Your task to perform on an android device: Play the last video I watched on Youtube Image 0: 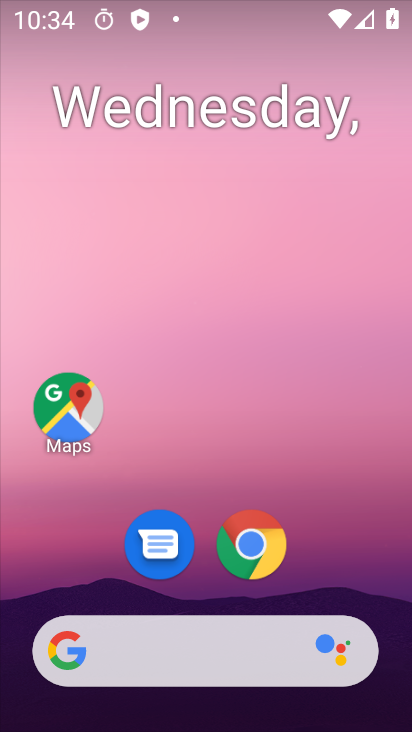
Step 0: drag from (302, 703) to (225, 29)
Your task to perform on an android device: Play the last video I watched on Youtube Image 1: 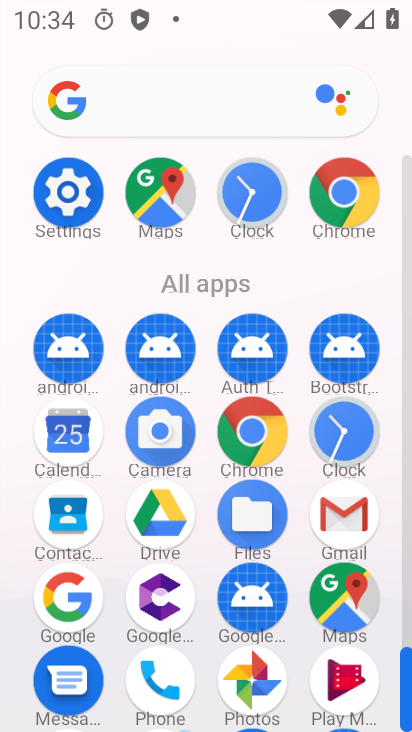
Step 1: drag from (208, 542) to (227, 153)
Your task to perform on an android device: Play the last video I watched on Youtube Image 2: 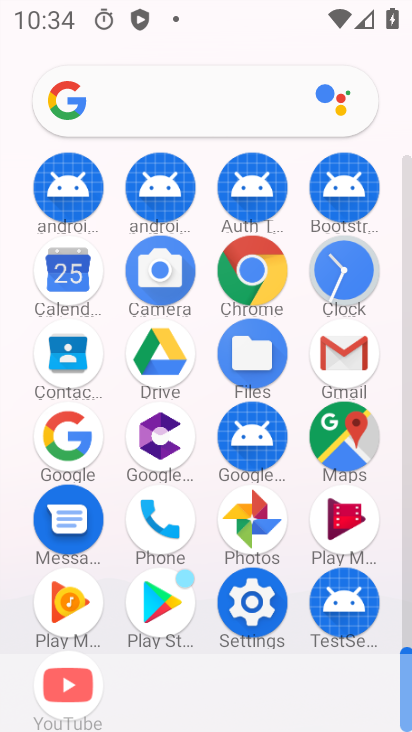
Step 2: drag from (101, 570) to (123, 472)
Your task to perform on an android device: Play the last video I watched on Youtube Image 3: 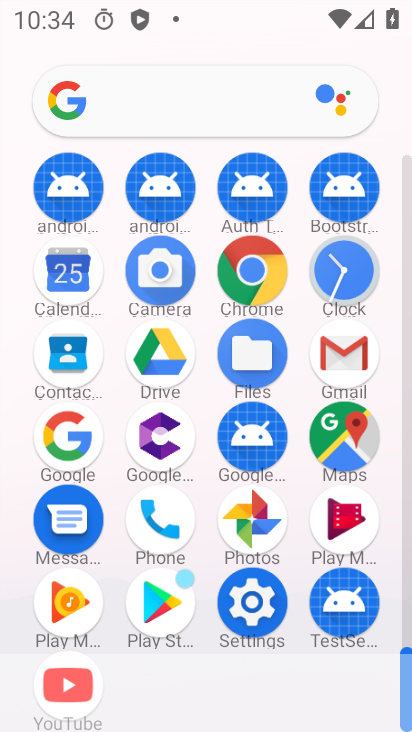
Step 3: click (65, 658)
Your task to perform on an android device: Play the last video I watched on Youtube Image 4: 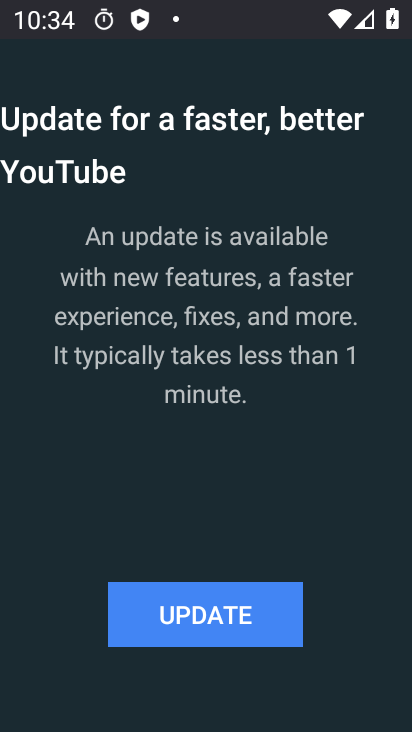
Step 4: click (199, 601)
Your task to perform on an android device: Play the last video I watched on Youtube Image 5: 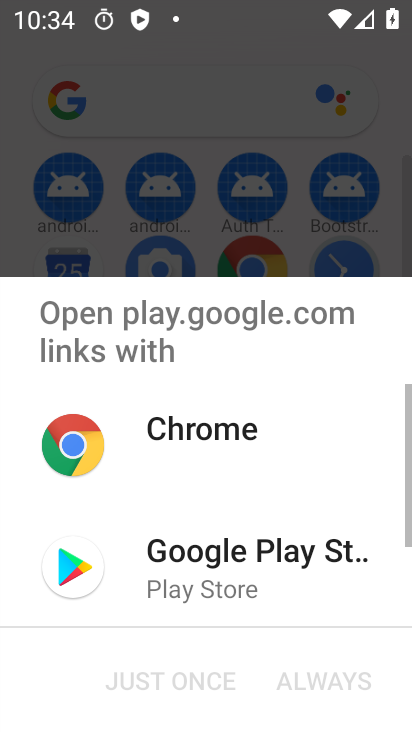
Step 5: click (199, 571)
Your task to perform on an android device: Play the last video I watched on Youtube Image 6: 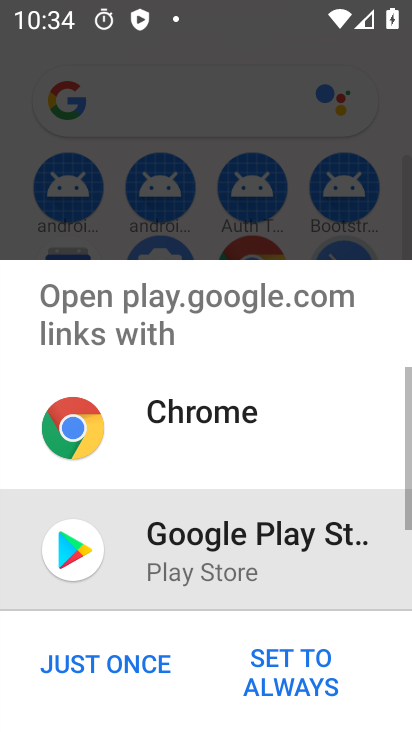
Step 6: click (164, 659)
Your task to perform on an android device: Play the last video I watched on Youtube Image 7: 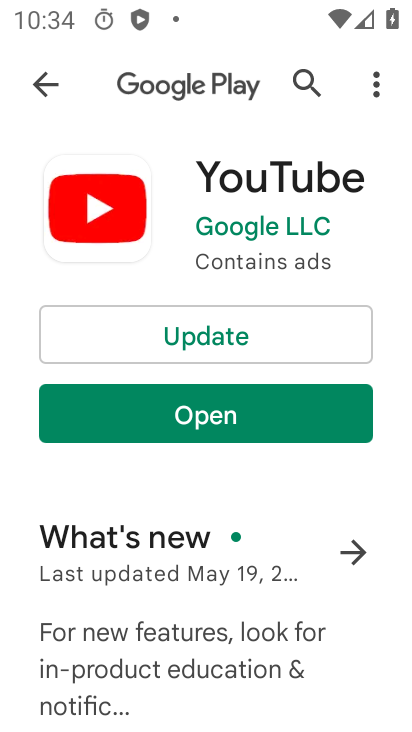
Step 7: click (314, 327)
Your task to perform on an android device: Play the last video I watched on Youtube Image 8: 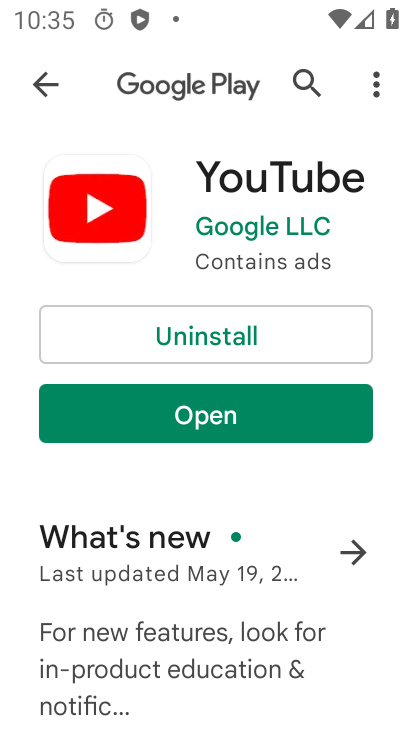
Step 8: click (228, 423)
Your task to perform on an android device: Play the last video I watched on Youtube Image 9: 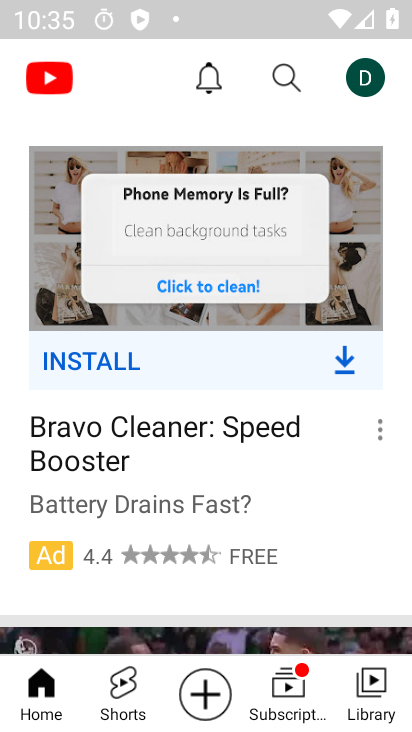
Step 9: drag from (277, 76) to (253, 423)
Your task to perform on an android device: Play the last video I watched on Youtube Image 10: 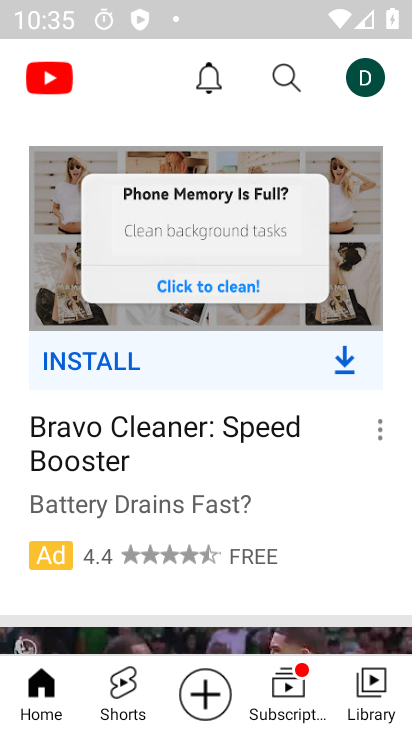
Step 10: click (387, 678)
Your task to perform on an android device: Play the last video I watched on Youtube Image 11: 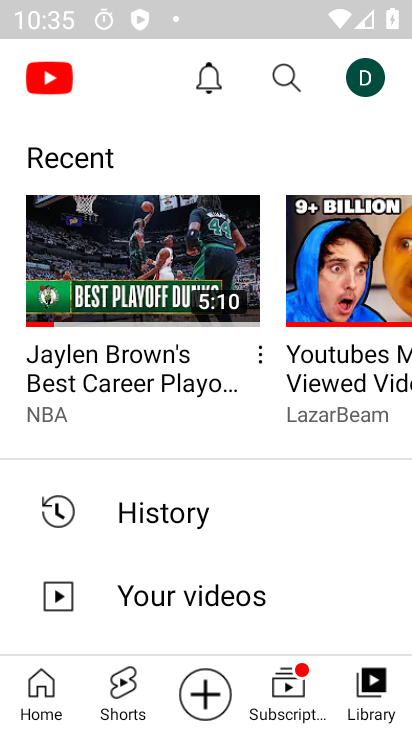
Step 11: click (125, 274)
Your task to perform on an android device: Play the last video I watched on Youtube Image 12: 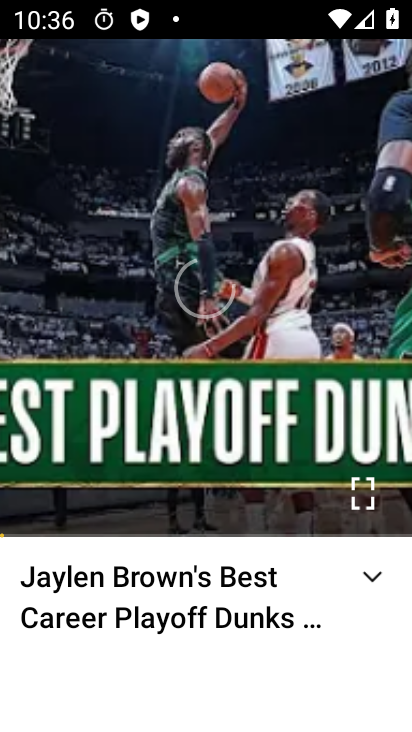
Step 12: click (246, 135)
Your task to perform on an android device: Play the last video I watched on Youtube Image 13: 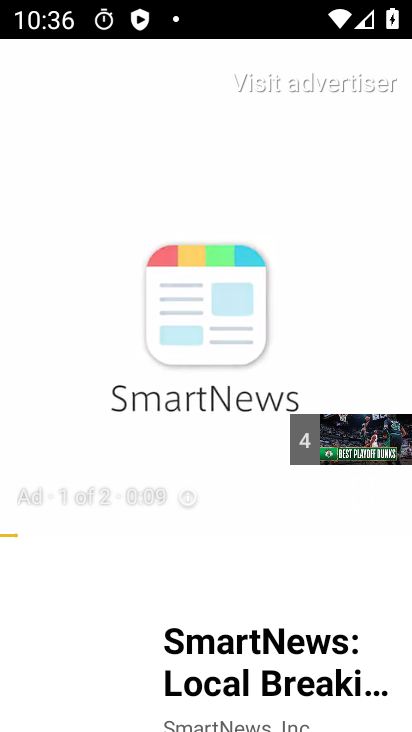
Step 13: click (215, 285)
Your task to perform on an android device: Play the last video I watched on Youtube Image 14: 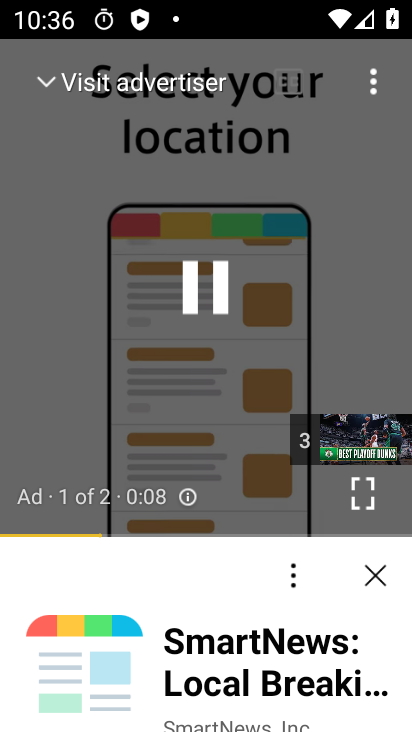
Step 14: task complete